Your task to perform on an android device: Open Google Maps Image 0: 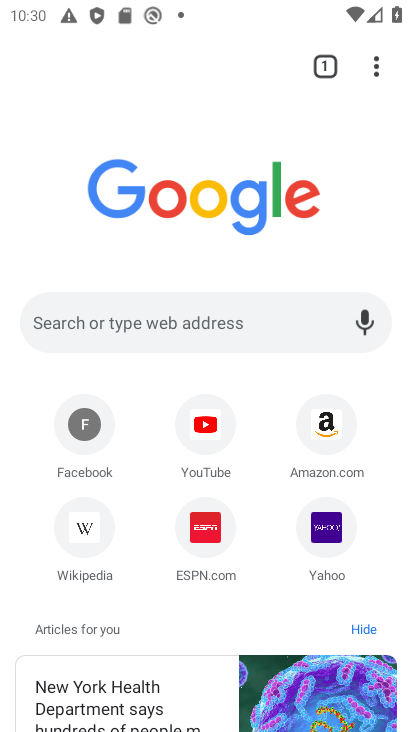
Step 0: press home button
Your task to perform on an android device: Open Google Maps Image 1: 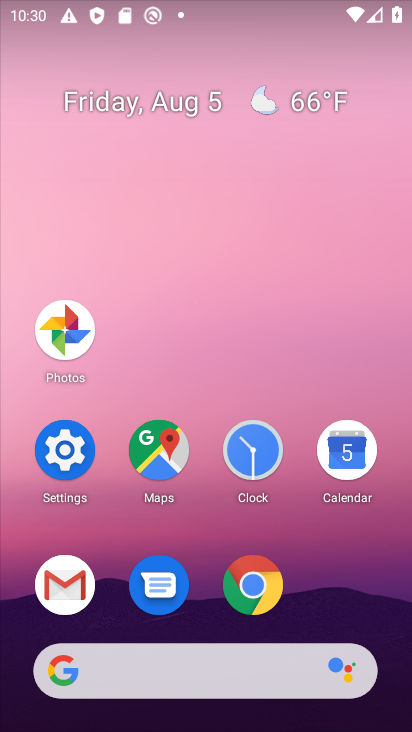
Step 1: click (154, 449)
Your task to perform on an android device: Open Google Maps Image 2: 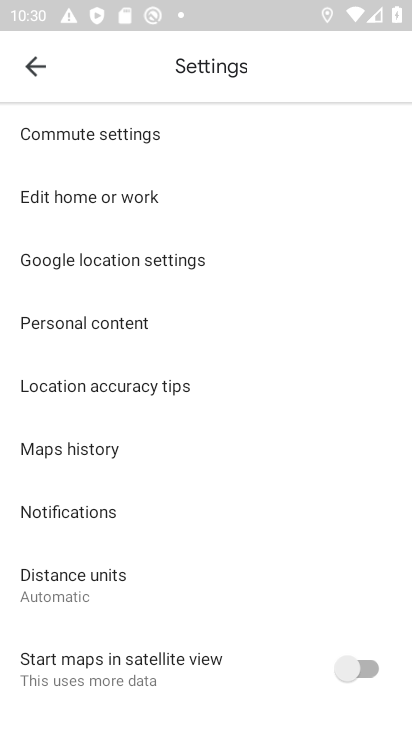
Step 2: click (35, 71)
Your task to perform on an android device: Open Google Maps Image 3: 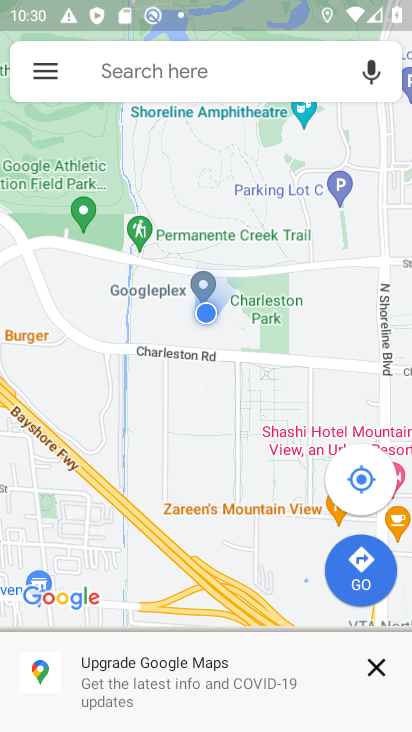
Step 3: task complete